Your task to perform on an android device: set the timer Image 0: 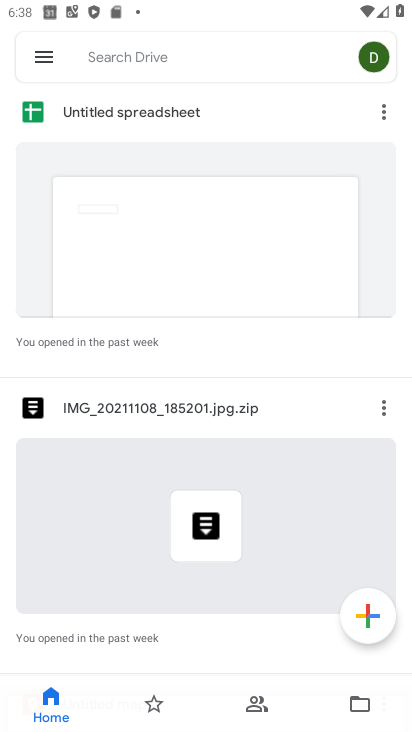
Step 0: press home button
Your task to perform on an android device: set the timer Image 1: 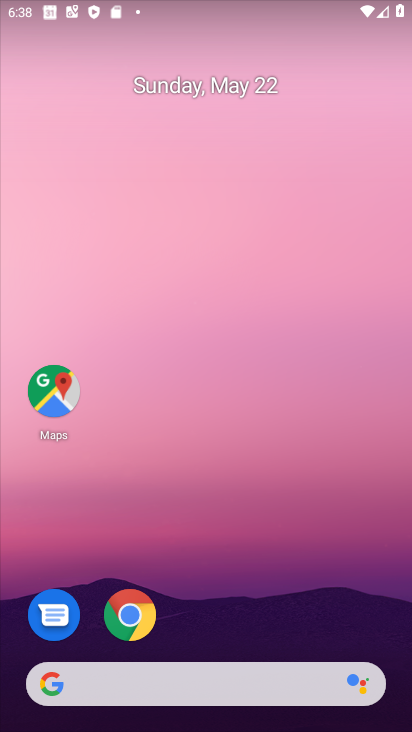
Step 1: drag from (246, 569) to (131, 75)
Your task to perform on an android device: set the timer Image 2: 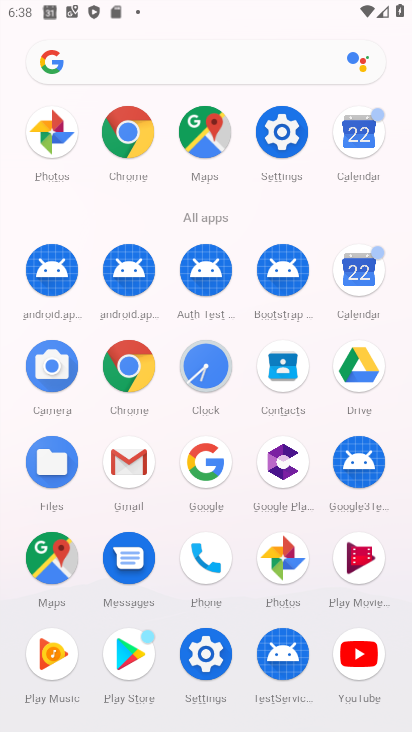
Step 2: click (204, 366)
Your task to perform on an android device: set the timer Image 3: 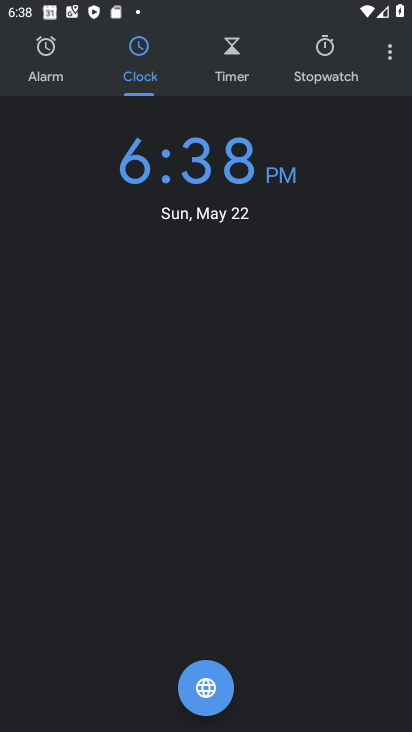
Step 3: click (231, 52)
Your task to perform on an android device: set the timer Image 4: 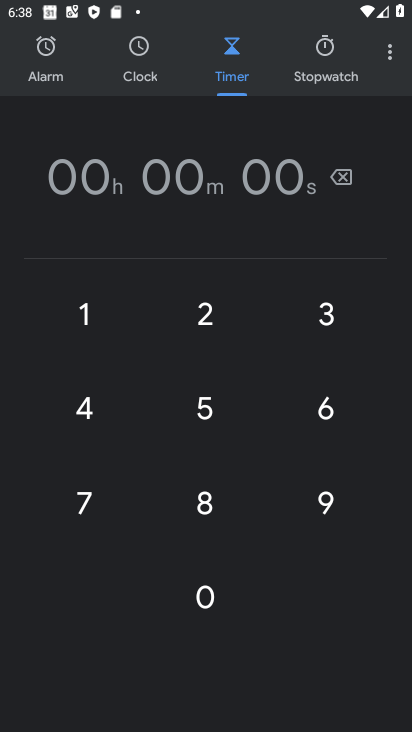
Step 4: click (84, 319)
Your task to perform on an android device: set the timer Image 5: 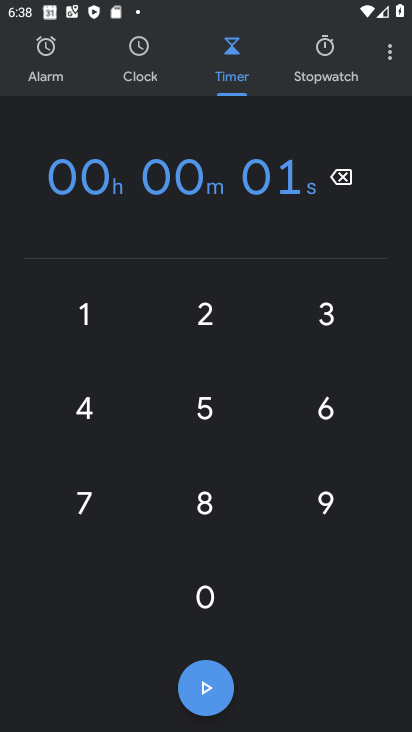
Step 5: click (84, 319)
Your task to perform on an android device: set the timer Image 6: 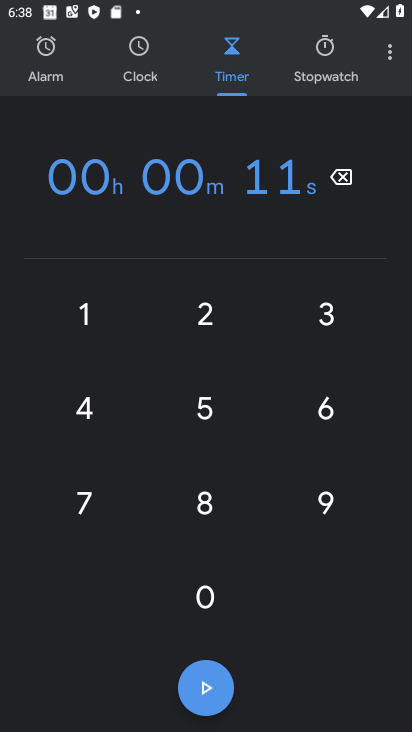
Step 6: click (84, 319)
Your task to perform on an android device: set the timer Image 7: 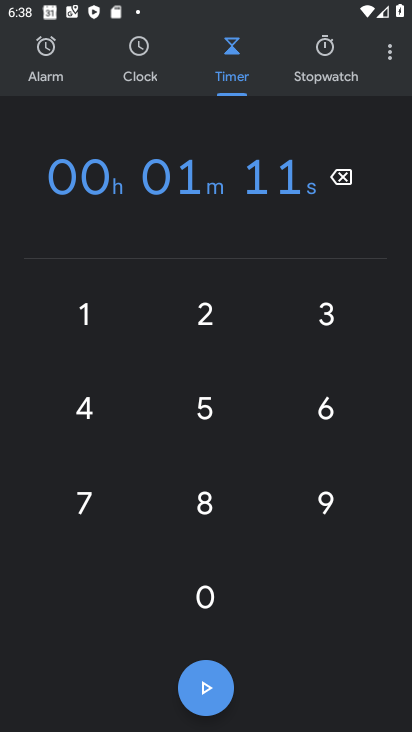
Step 7: click (84, 319)
Your task to perform on an android device: set the timer Image 8: 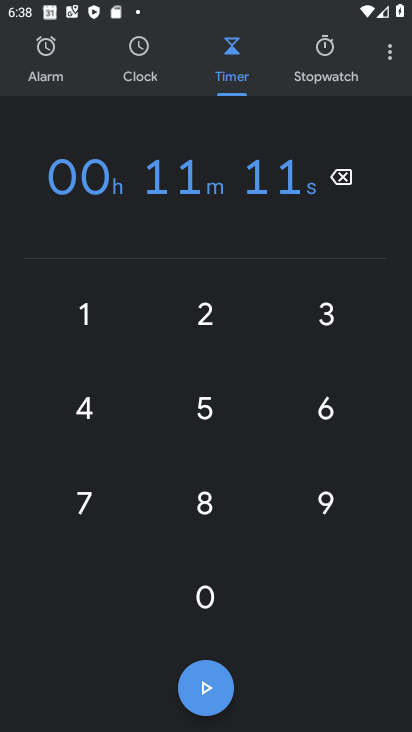
Step 8: click (84, 319)
Your task to perform on an android device: set the timer Image 9: 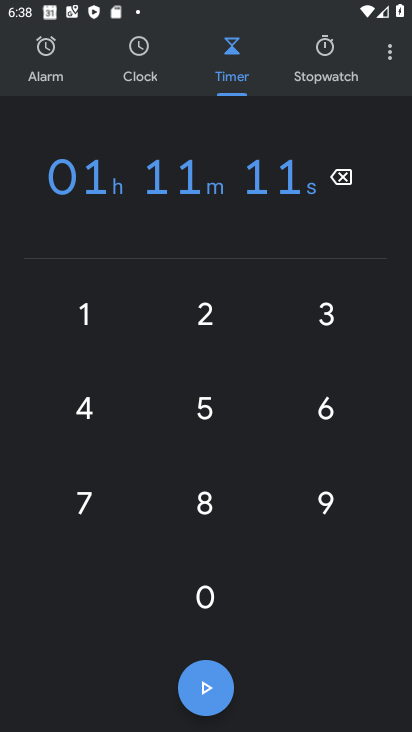
Step 9: task complete